Your task to perform on an android device: open a bookmark in the chrome app Image 0: 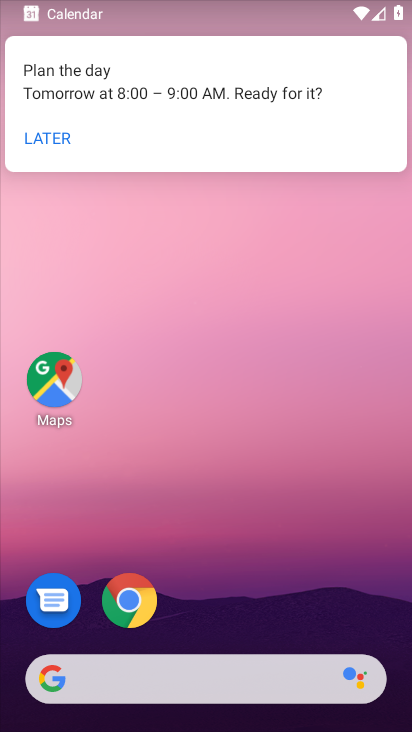
Step 0: click (125, 594)
Your task to perform on an android device: open a bookmark in the chrome app Image 1: 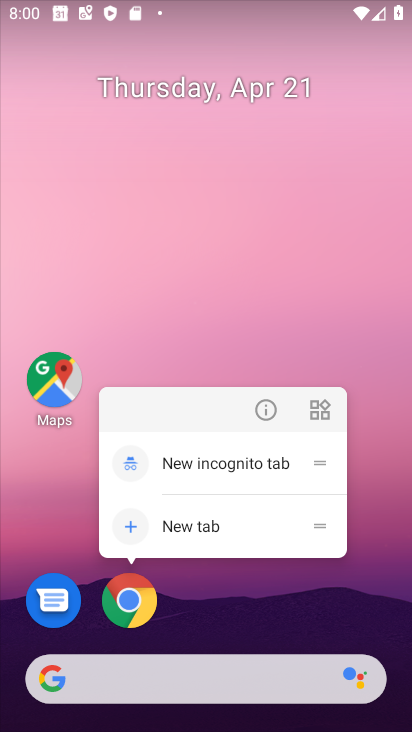
Step 1: click (263, 405)
Your task to perform on an android device: open a bookmark in the chrome app Image 2: 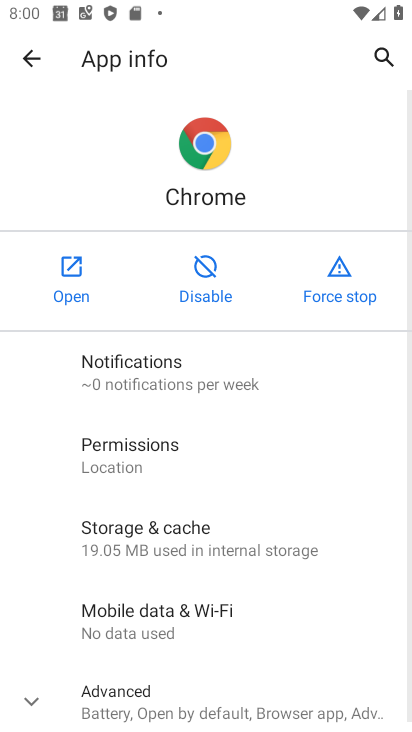
Step 2: click (68, 266)
Your task to perform on an android device: open a bookmark in the chrome app Image 3: 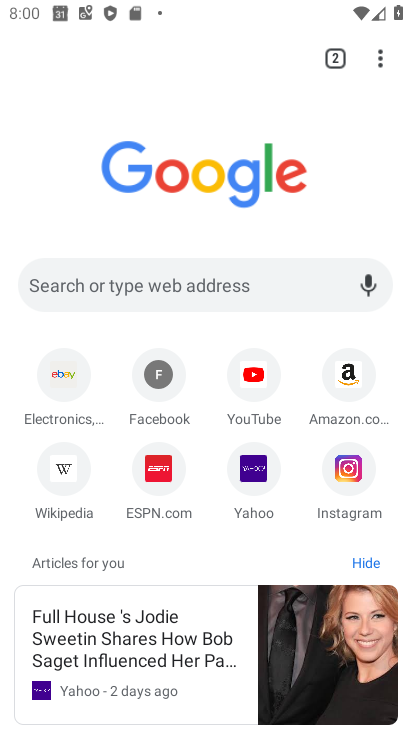
Step 3: click (377, 64)
Your task to perform on an android device: open a bookmark in the chrome app Image 4: 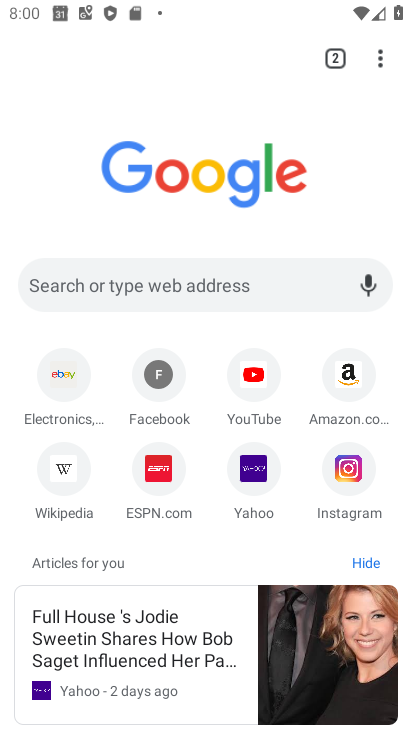
Step 4: click (377, 64)
Your task to perform on an android device: open a bookmark in the chrome app Image 5: 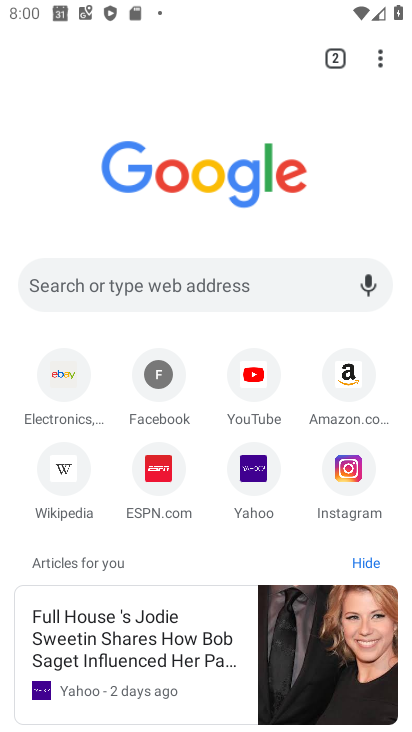
Step 5: click (376, 64)
Your task to perform on an android device: open a bookmark in the chrome app Image 6: 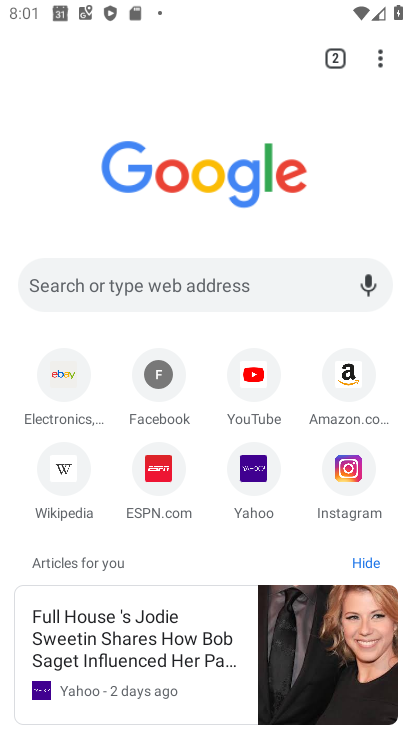
Step 6: click (376, 64)
Your task to perform on an android device: open a bookmark in the chrome app Image 7: 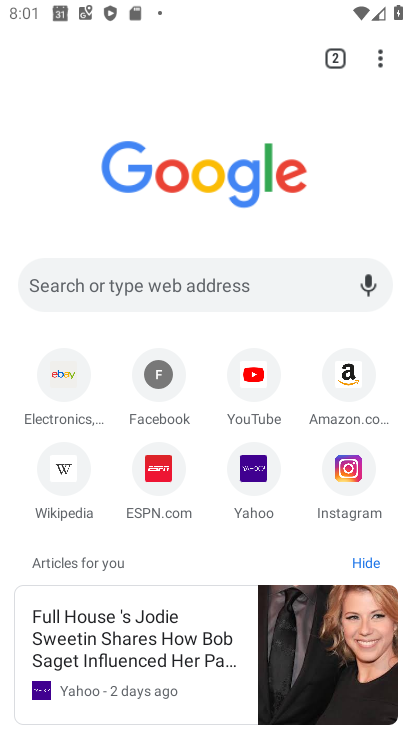
Step 7: click (380, 59)
Your task to perform on an android device: open a bookmark in the chrome app Image 8: 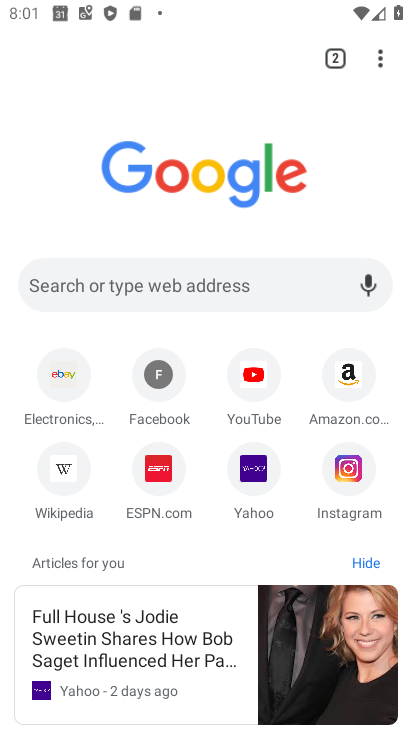
Step 8: click (376, 55)
Your task to perform on an android device: open a bookmark in the chrome app Image 9: 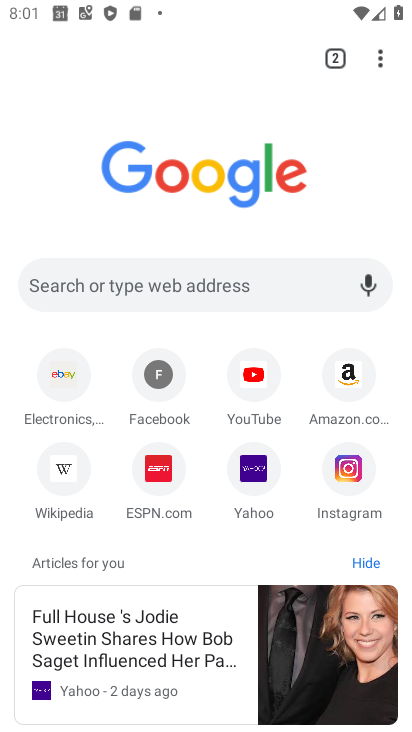
Step 9: click (376, 55)
Your task to perform on an android device: open a bookmark in the chrome app Image 10: 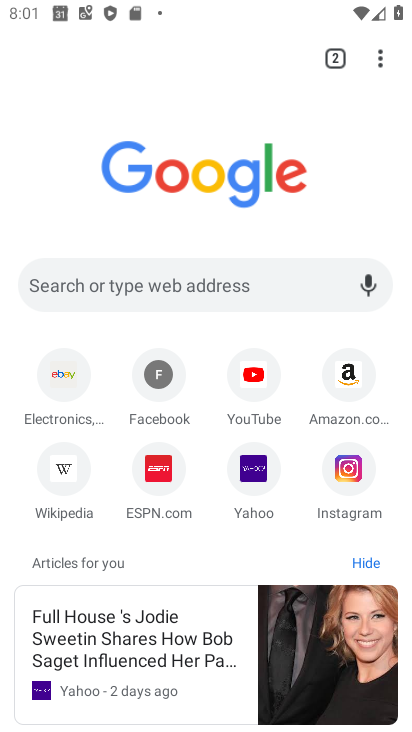
Step 10: click (368, 49)
Your task to perform on an android device: open a bookmark in the chrome app Image 11: 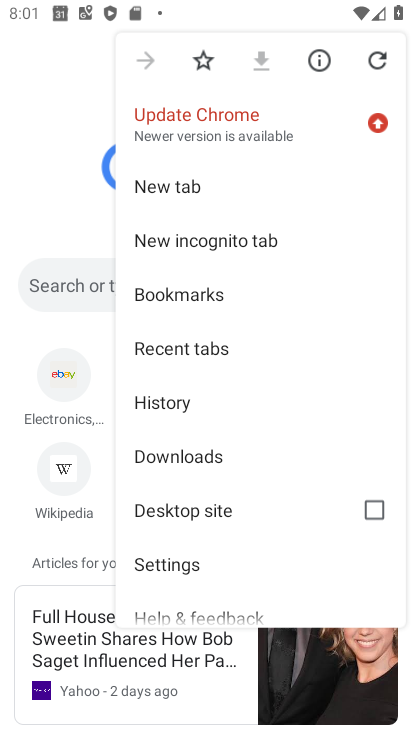
Step 11: click (221, 291)
Your task to perform on an android device: open a bookmark in the chrome app Image 12: 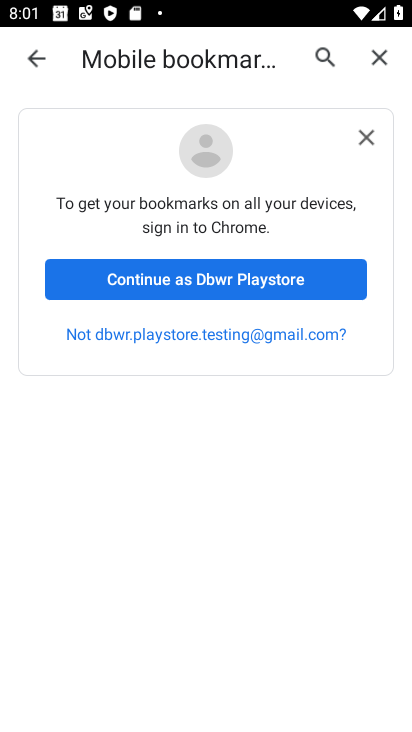
Step 12: click (363, 139)
Your task to perform on an android device: open a bookmark in the chrome app Image 13: 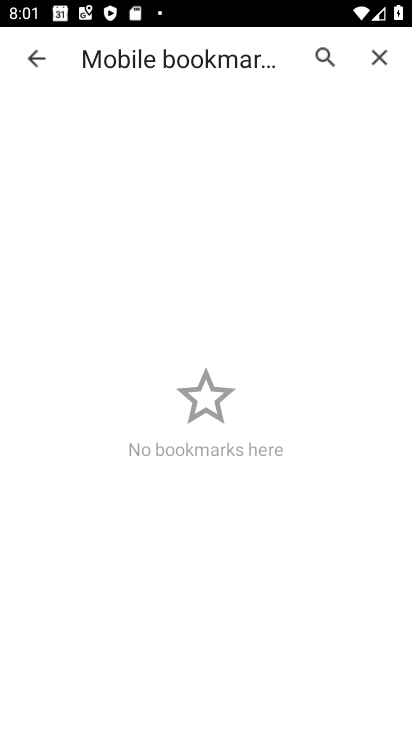
Step 13: task complete